Your task to perform on an android device: change text size in settings app Image 0: 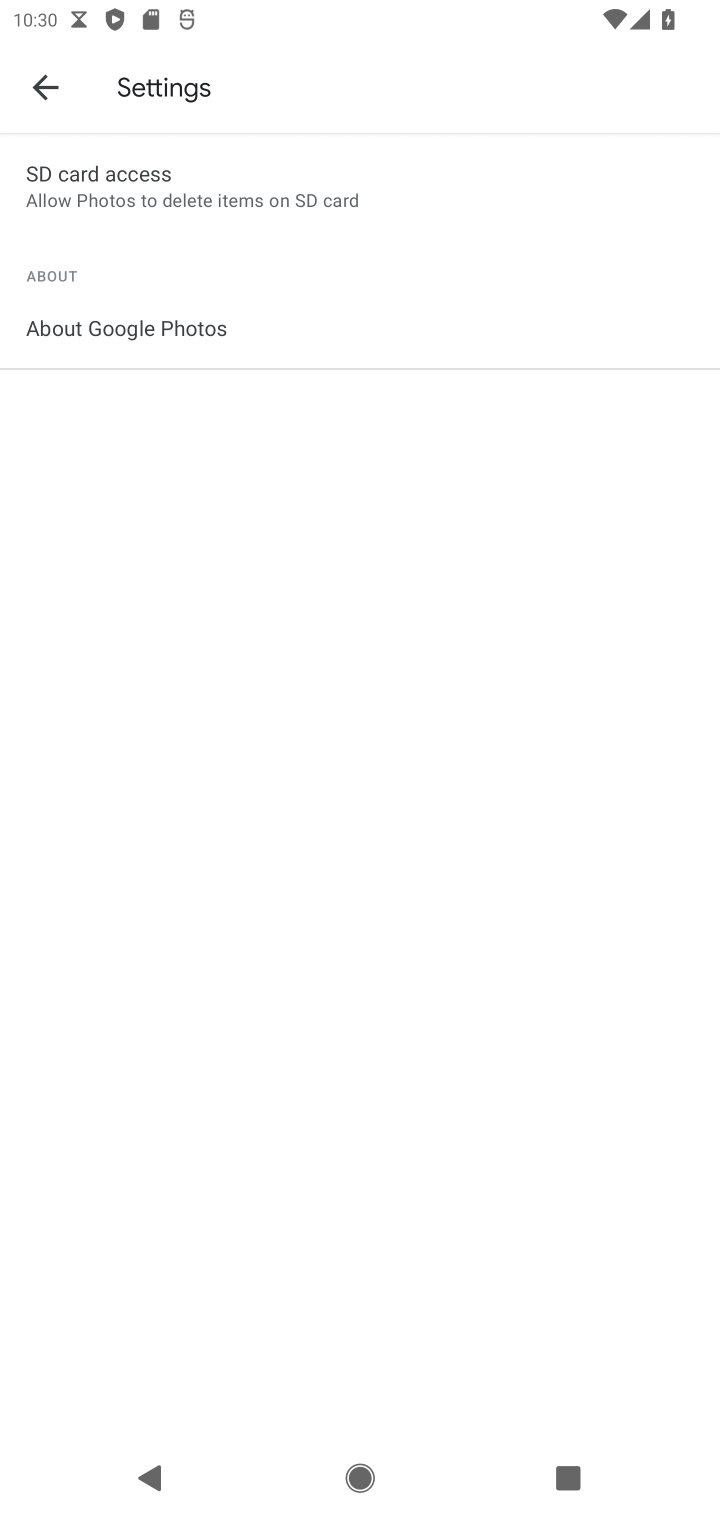
Step 0: press back button
Your task to perform on an android device: change text size in settings app Image 1: 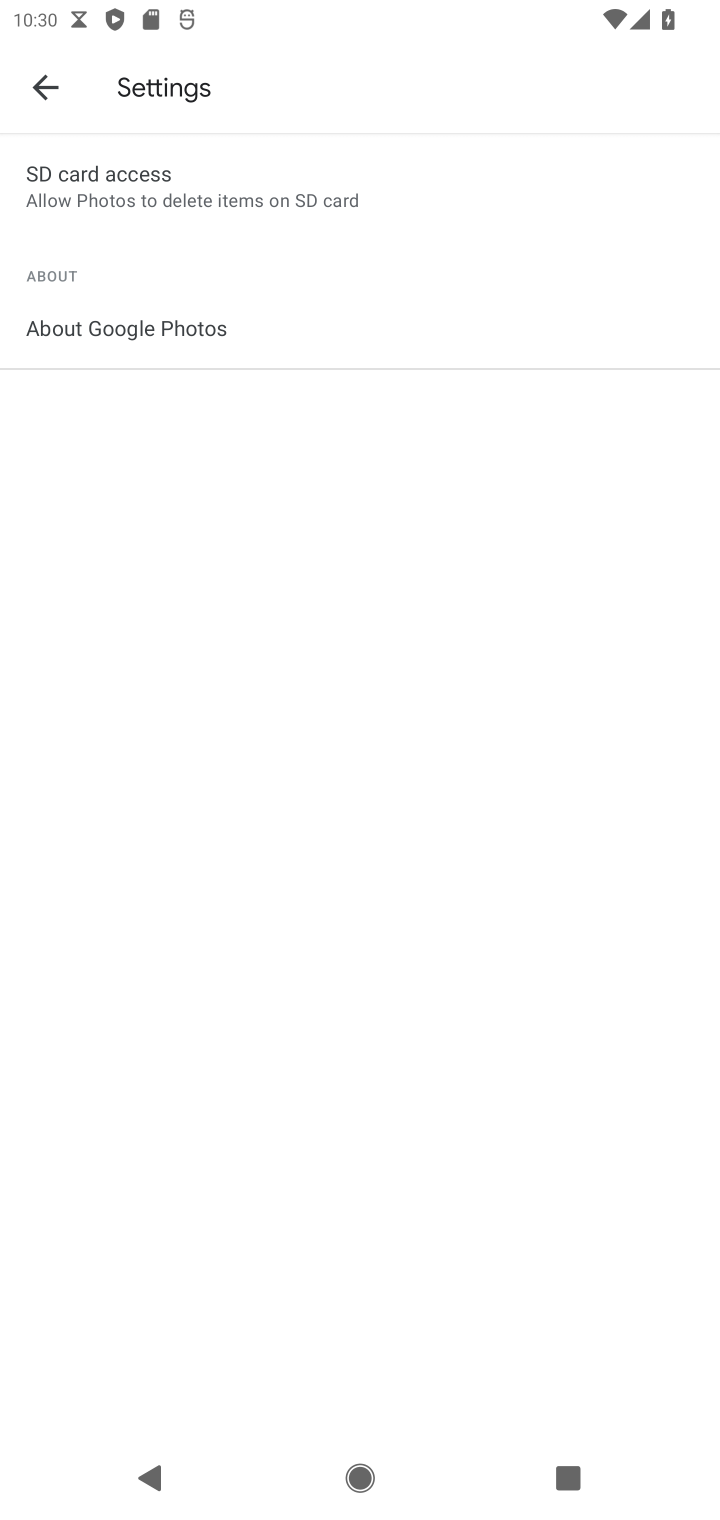
Step 1: press back button
Your task to perform on an android device: change text size in settings app Image 2: 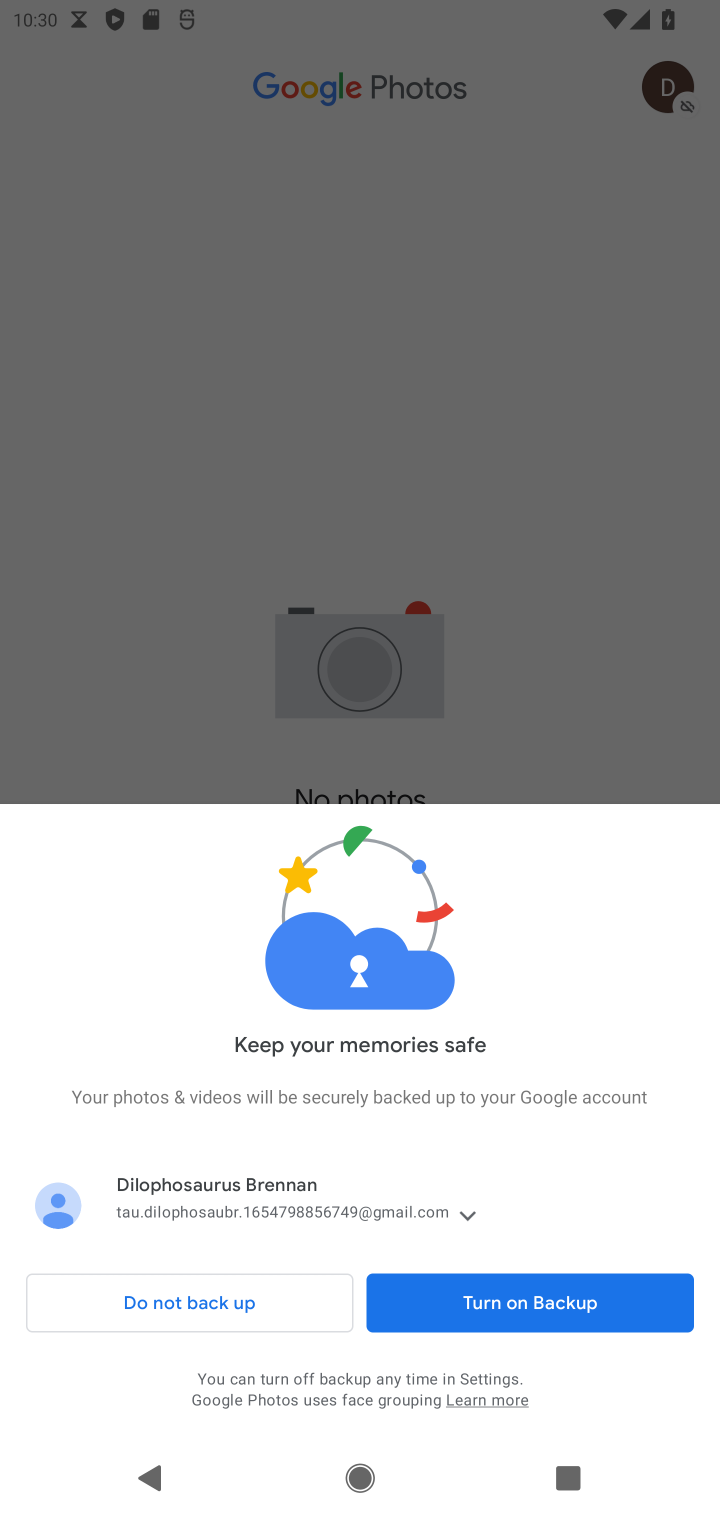
Step 2: click (88, 1306)
Your task to perform on an android device: change text size in settings app Image 3: 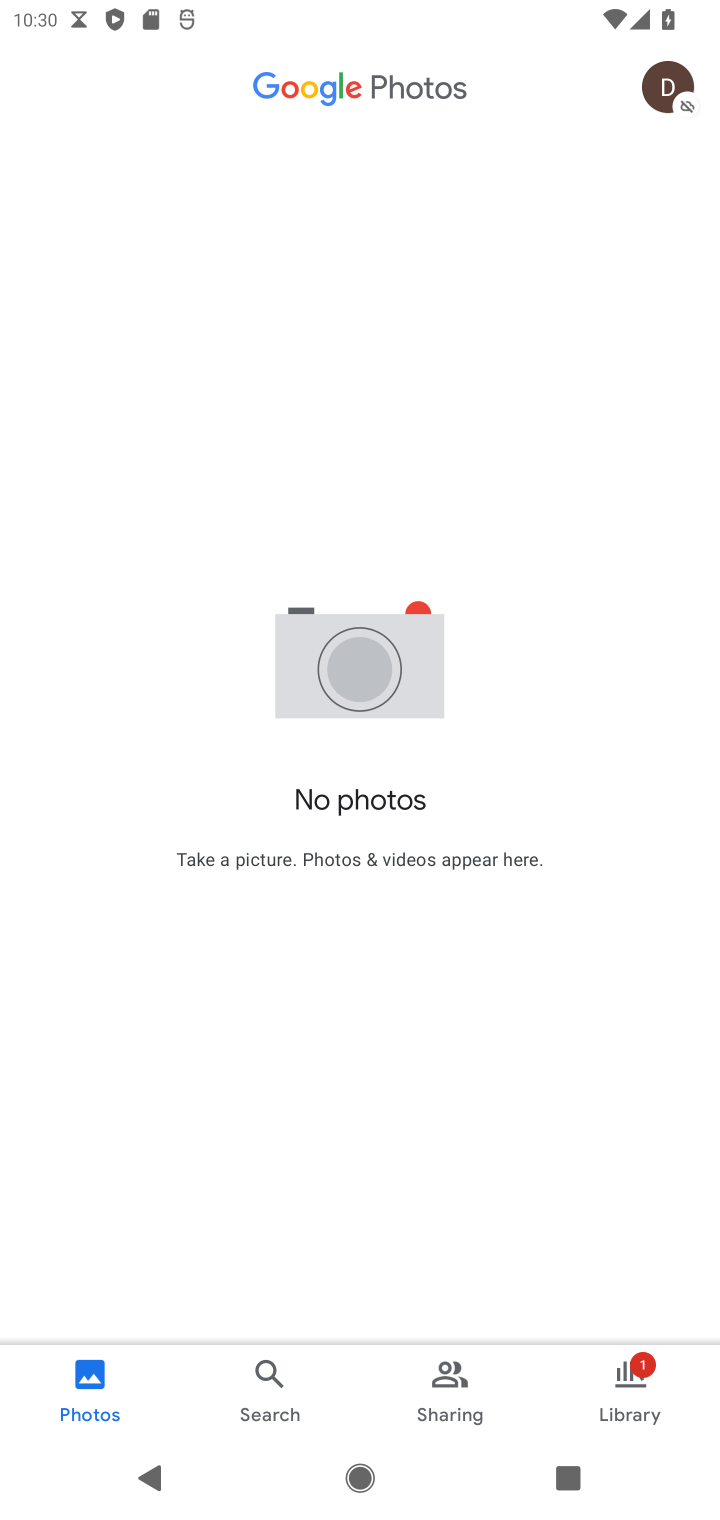
Step 3: press home button
Your task to perform on an android device: change text size in settings app Image 4: 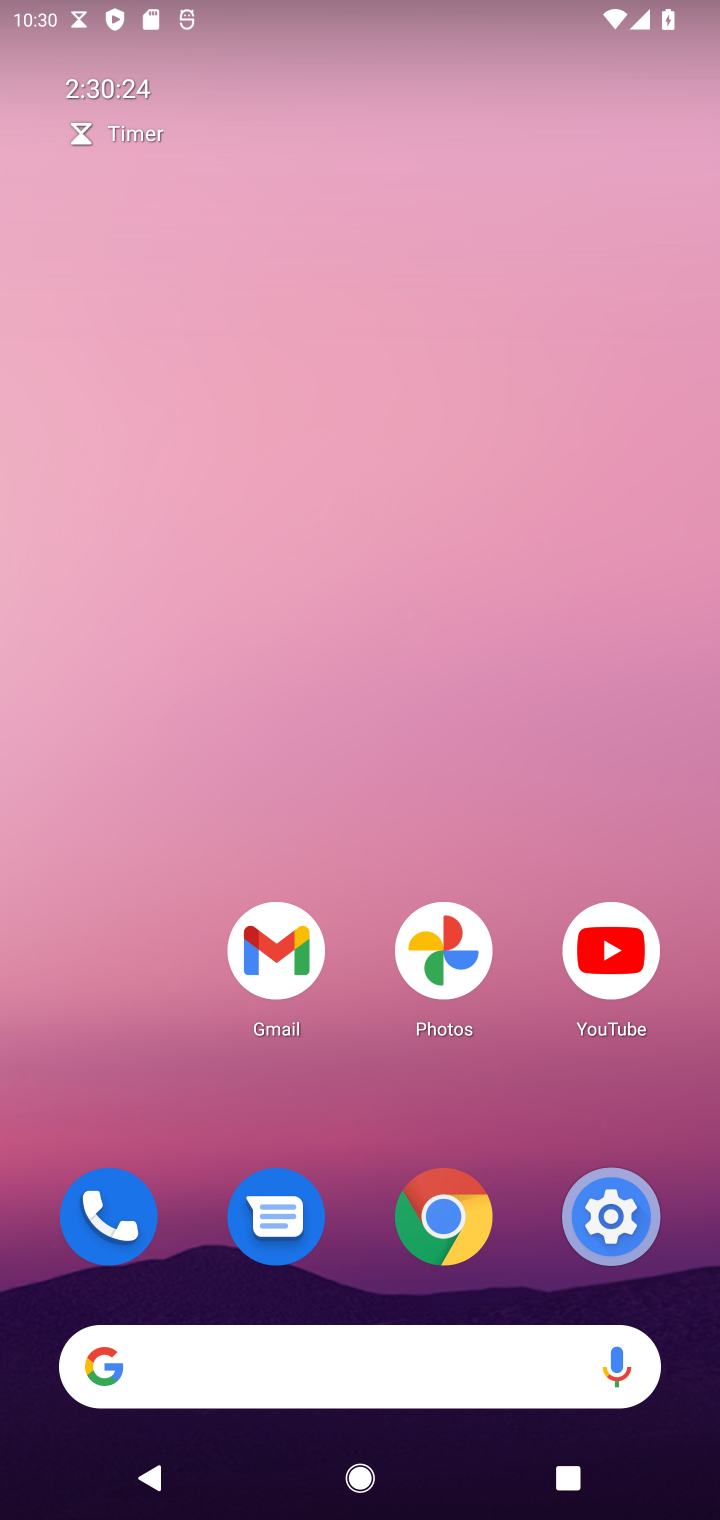
Step 4: click (624, 1218)
Your task to perform on an android device: change text size in settings app Image 5: 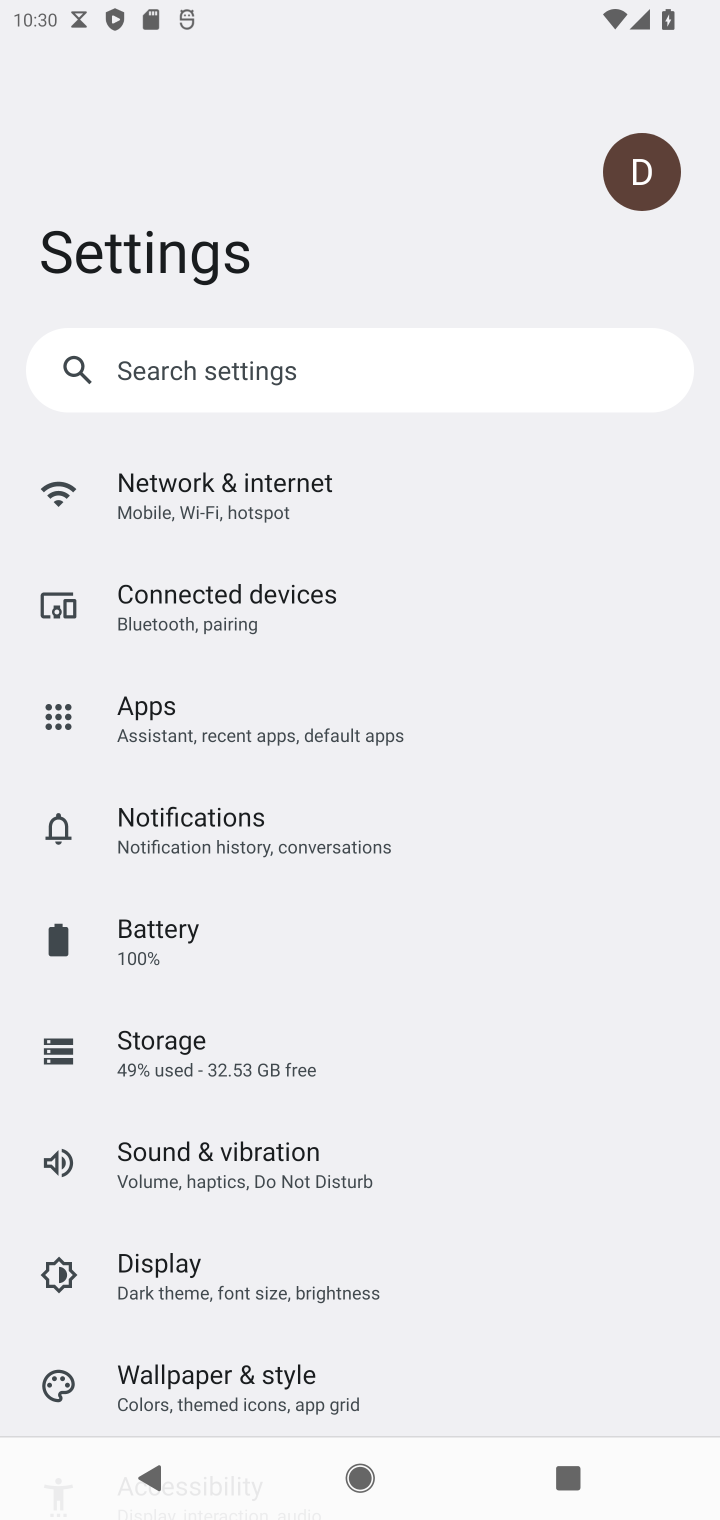
Step 5: click (228, 1282)
Your task to perform on an android device: change text size in settings app Image 6: 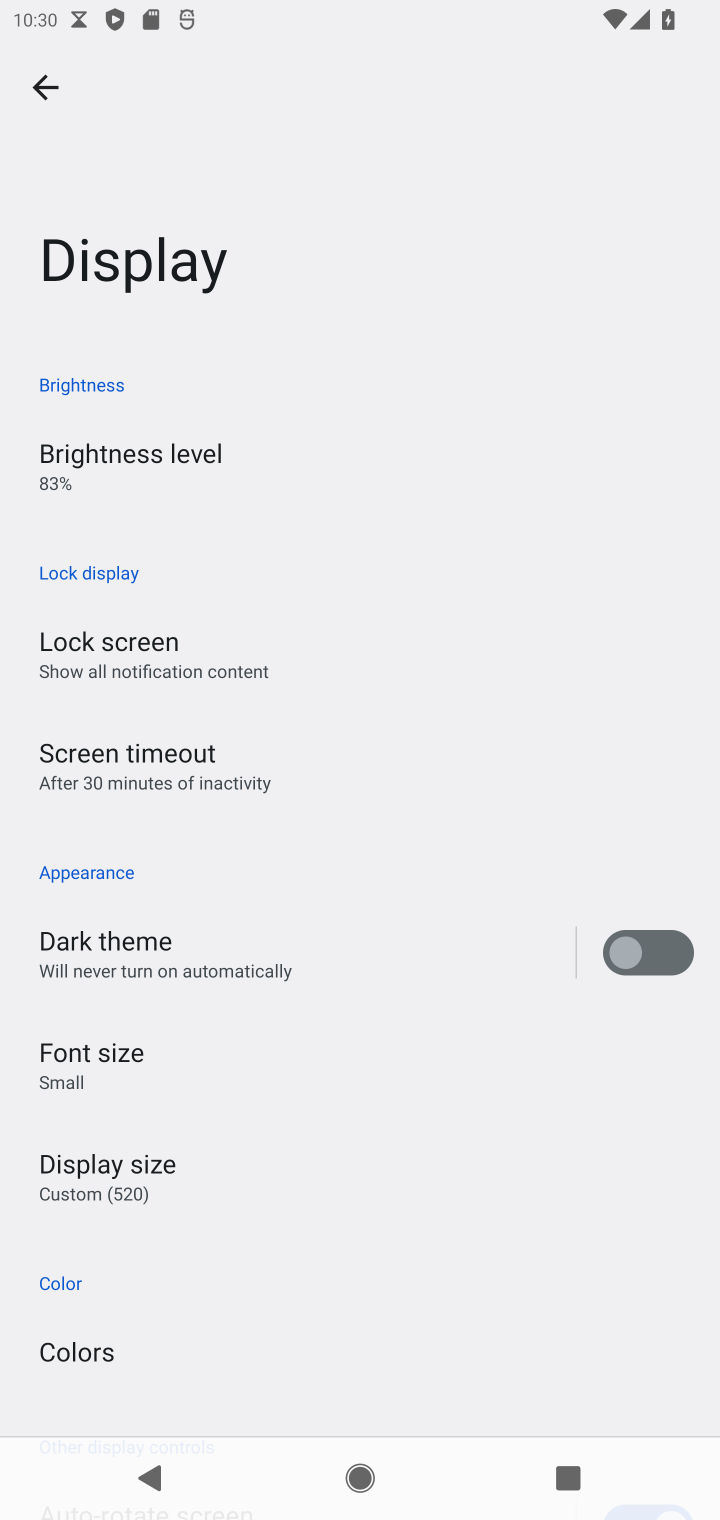
Step 6: click (72, 1047)
Your task to perform on an android device: change text size in settings app Image 7: 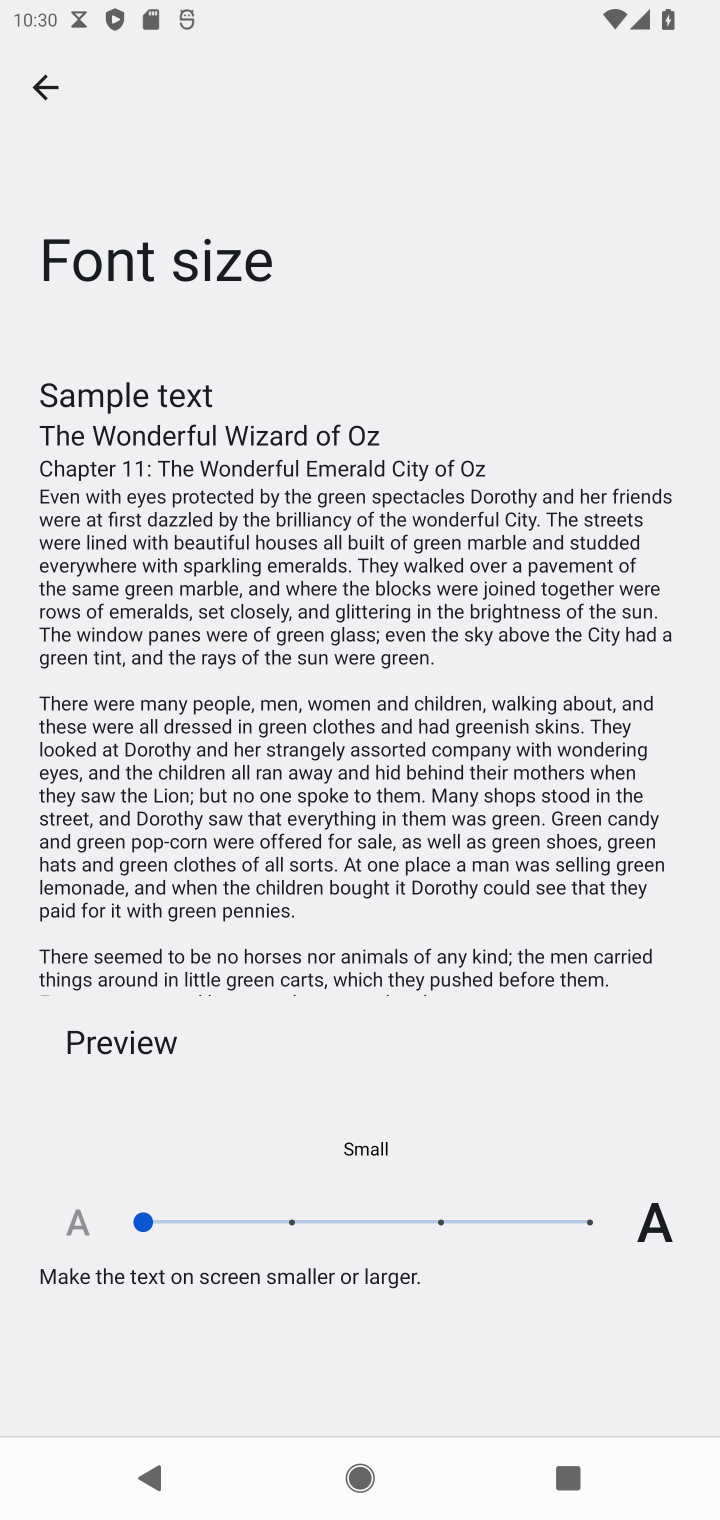
Step 7: task complete